Your task to perform on an android device: Search for Mexican restaurants on Maps Image 0: 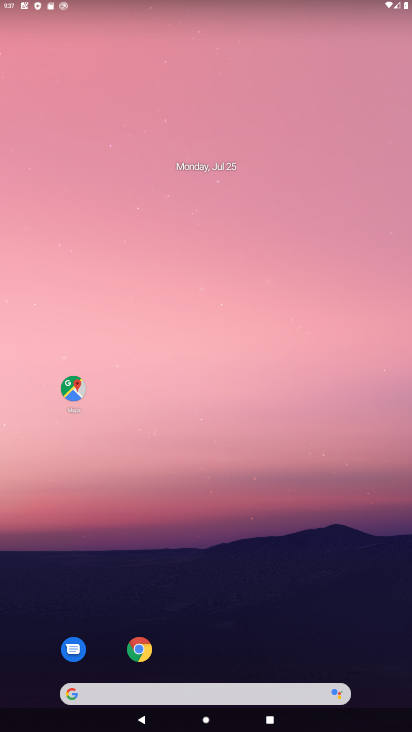
Step 0: drag from (266, 401) to (296, 35)
Your task to perform on an android device: Search for Mexican restaurants on Maps Image 1: 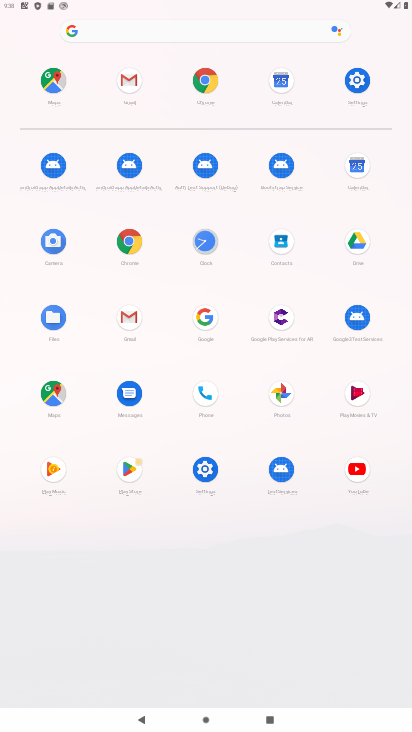
Step 1: click (45, 405)
Your task to perform on an android device: Search for Mexican restaurants on Maps Image 2: 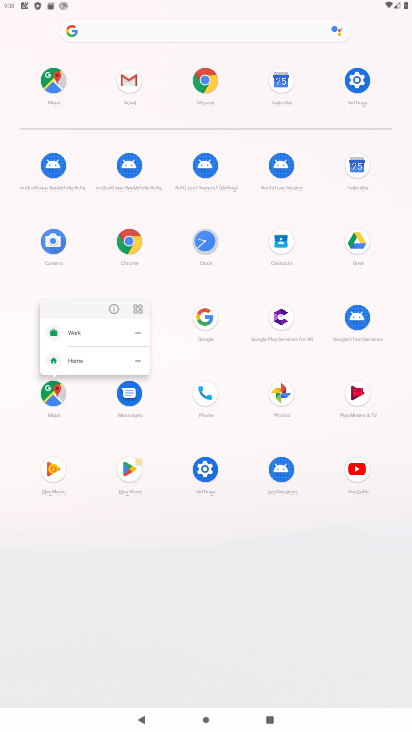
Step 2: click (45, 403)
Your task to perform on an android device: Search for Mexican restaurants on Maps Image 3: 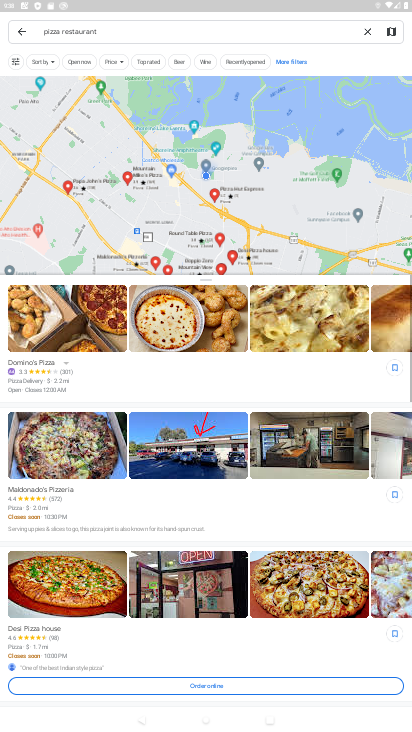
Step 3: click (12, 34)
Your task to perform on an android device: Search for Mexican restaurants on Maps Image 4: 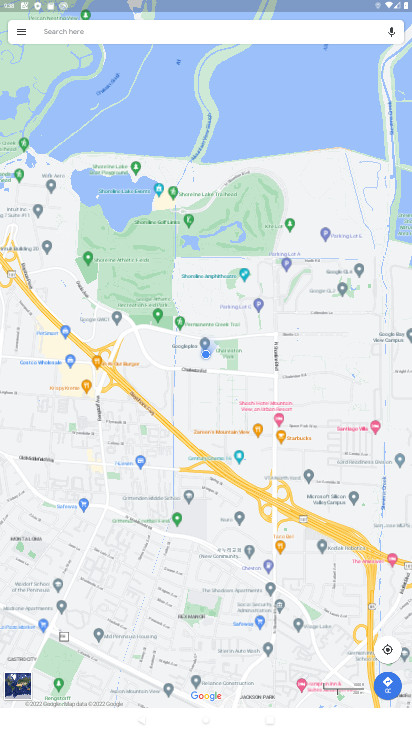
Step 4: click (95, 33)
Your task to perform on an android device: Search for Mexican restaurants on Maps Image 5: 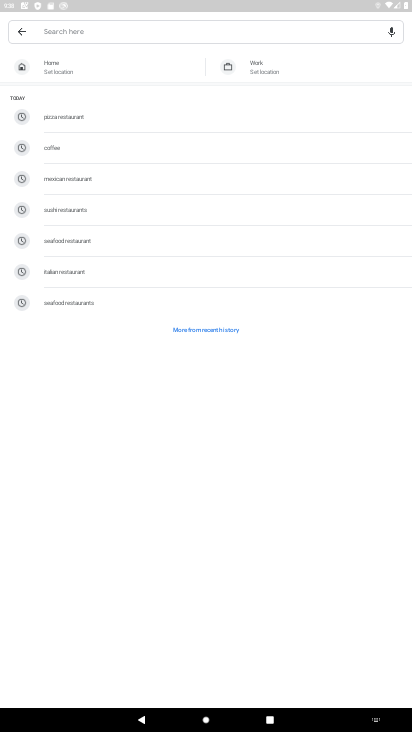
Step 5: type "Mexican restaurants"
Your task to perform on an android device: Search for Mexican restaurants on Maps Image 6: 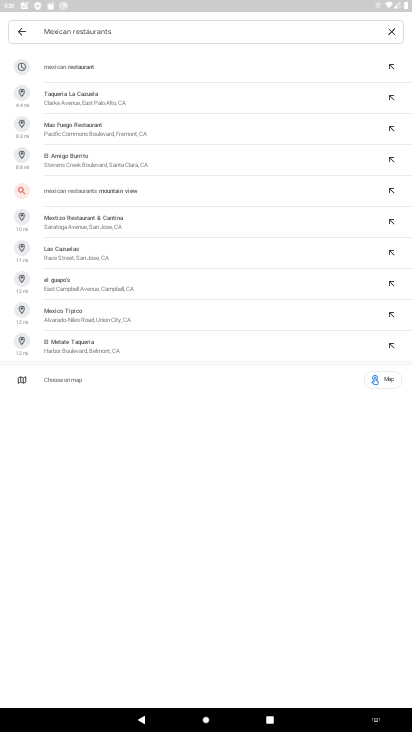
Step 6: click (90, 61)
Your task to perform on an android device: Search for Mexican restaurants on Maps Image 7: 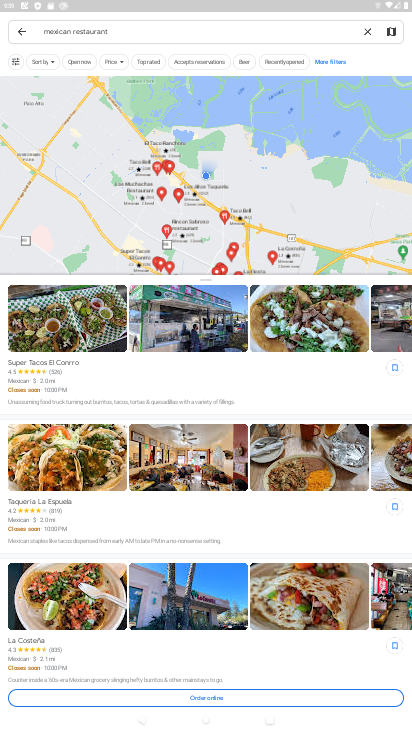
Step 7: task complete